Your task to perform on an android device: Go to wifi settings Image 0: 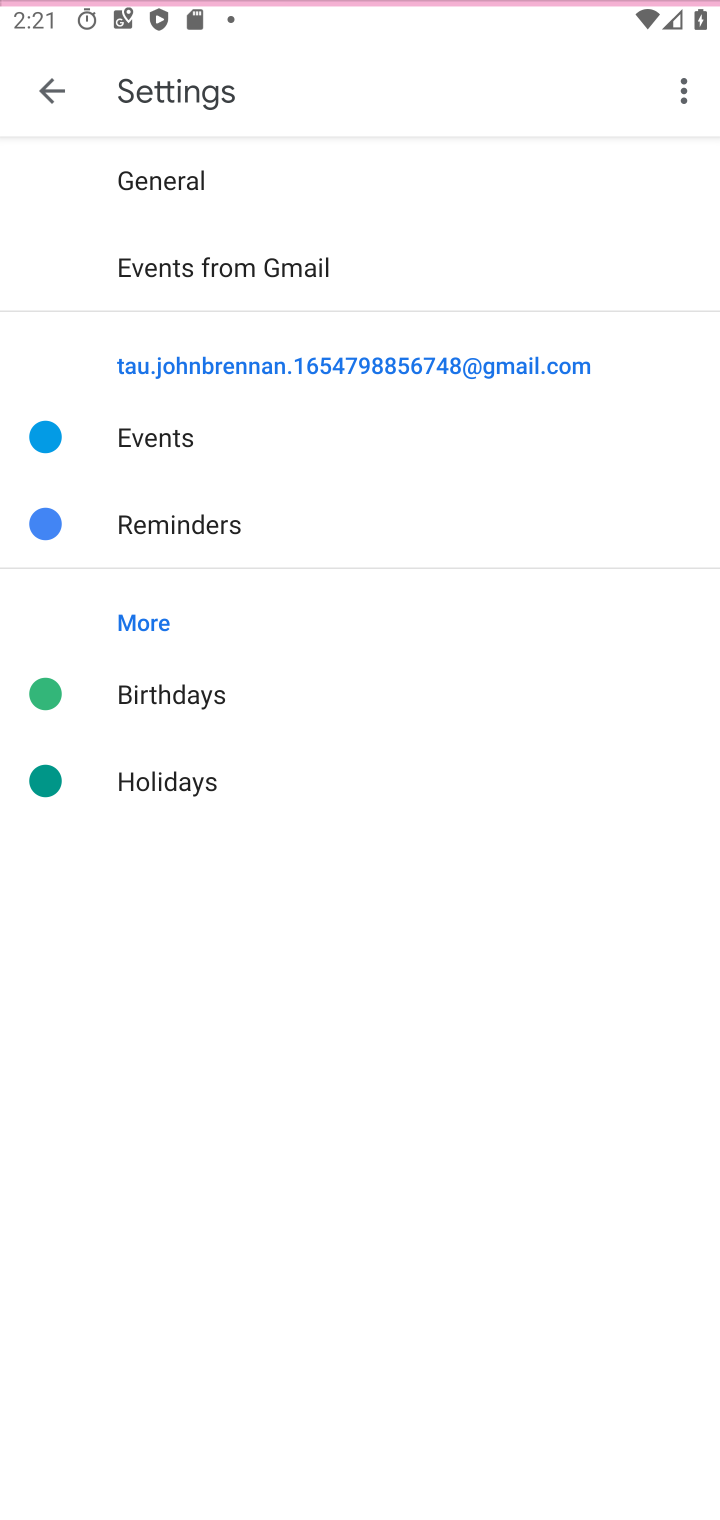
Step 0: press home button
Your task to perform on an android device: Go to wifi settings Image 1: 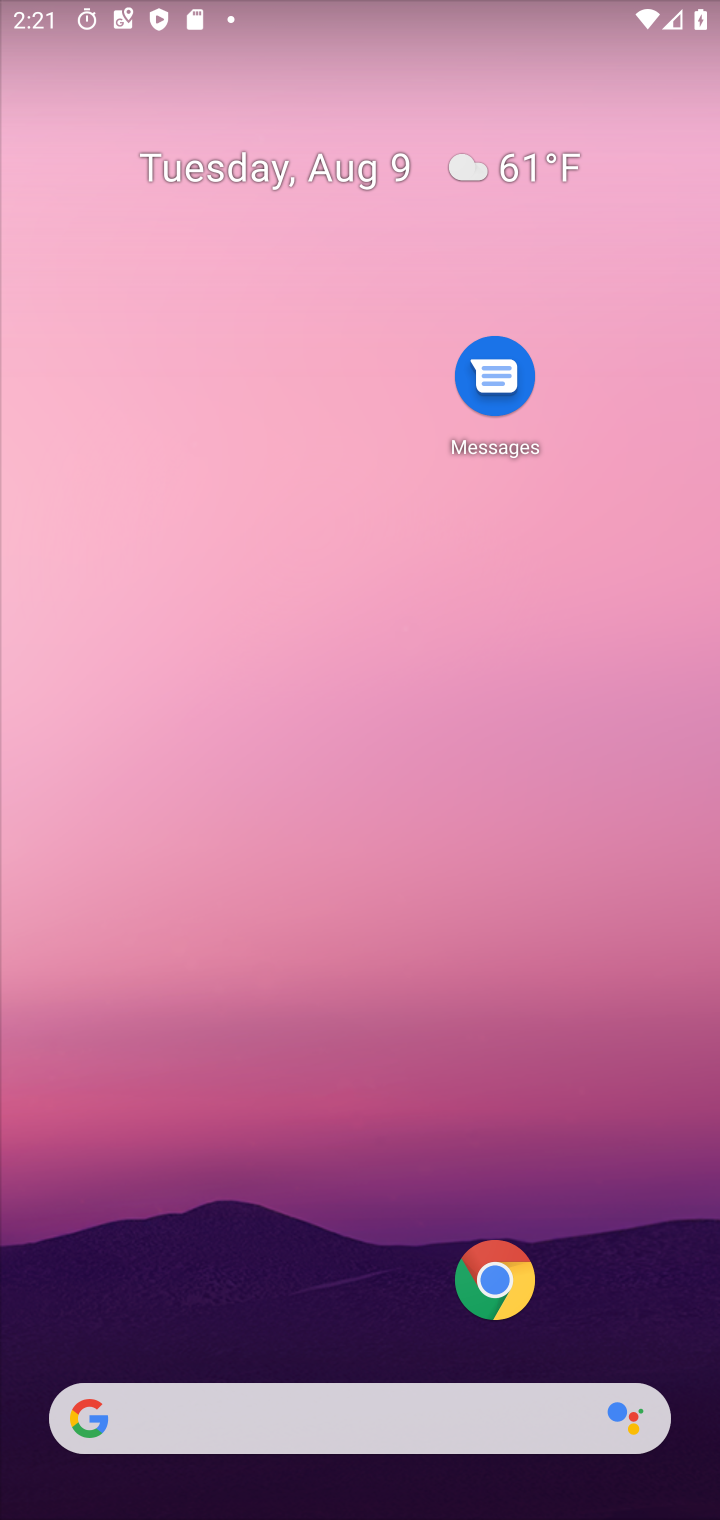
Step 1: drag from (362, 1332) to (654, 167)
Your task to perform on an android device: Go to wifi settings Image 2: 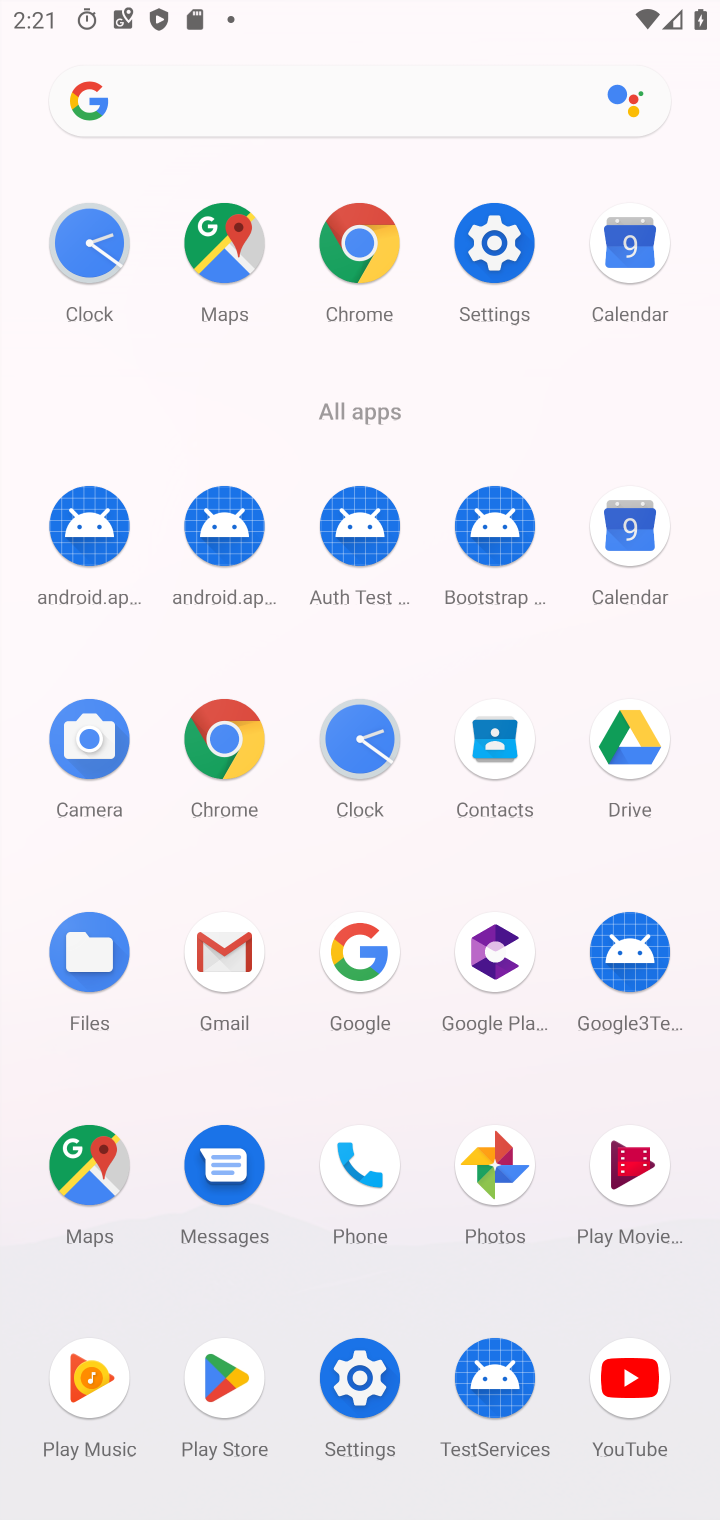
Step 2: click (503, 250)
Your task to perform on an android device: Go to wifi settings Image 3: 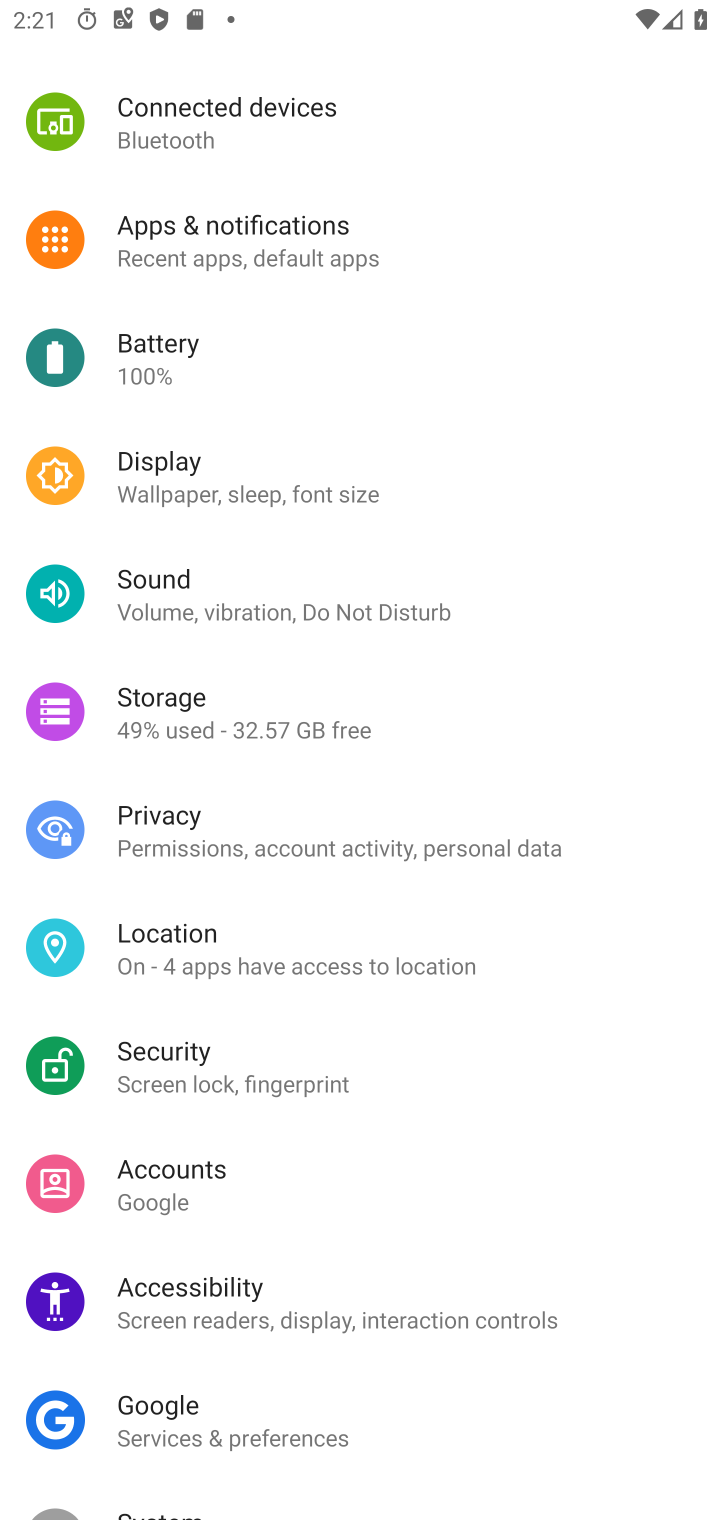
Step 3: drag from (477, 180) to (452, 1126)
Your task to perform on an android device: Go to wifi settings Image 4: 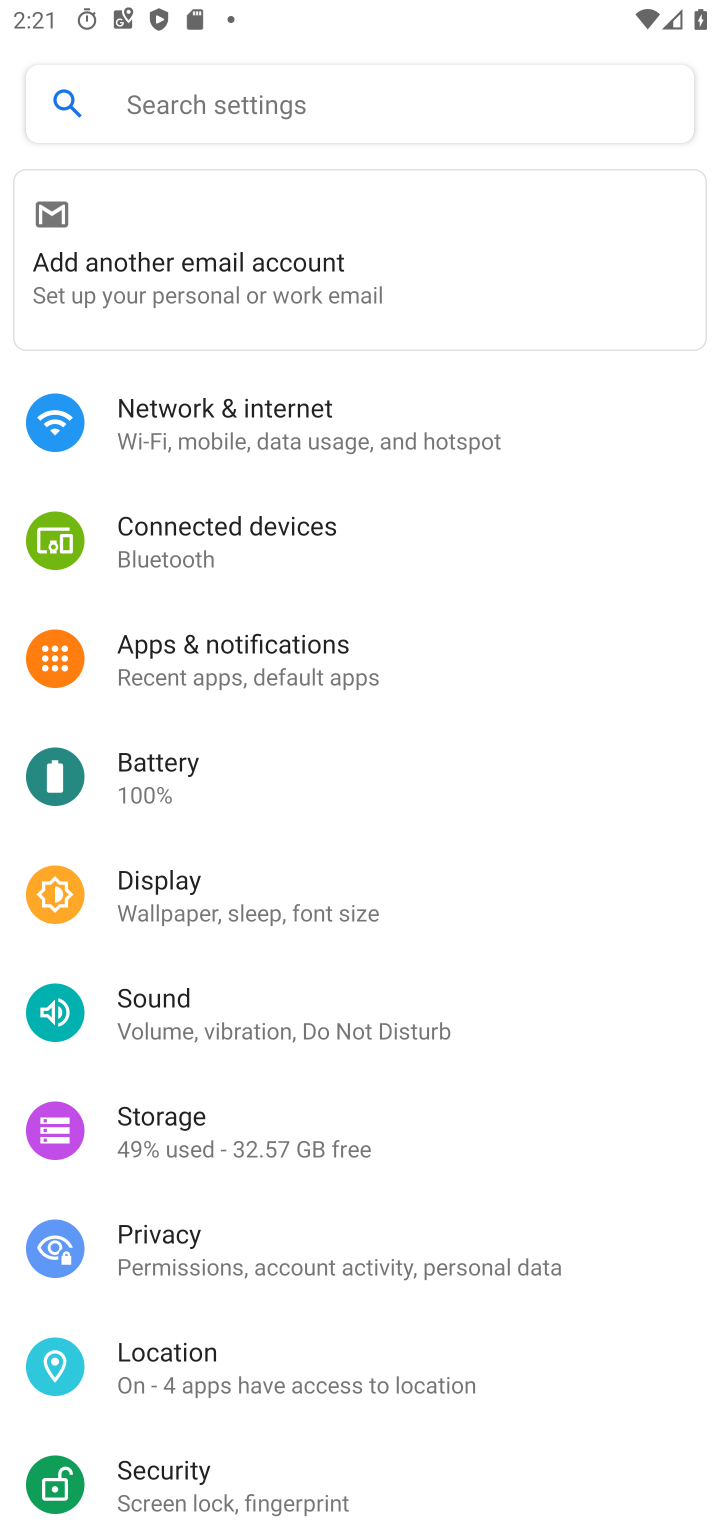
Step 4: click (279, 418)
Your task to perform on an android device: Go to wifi settings Image 5: 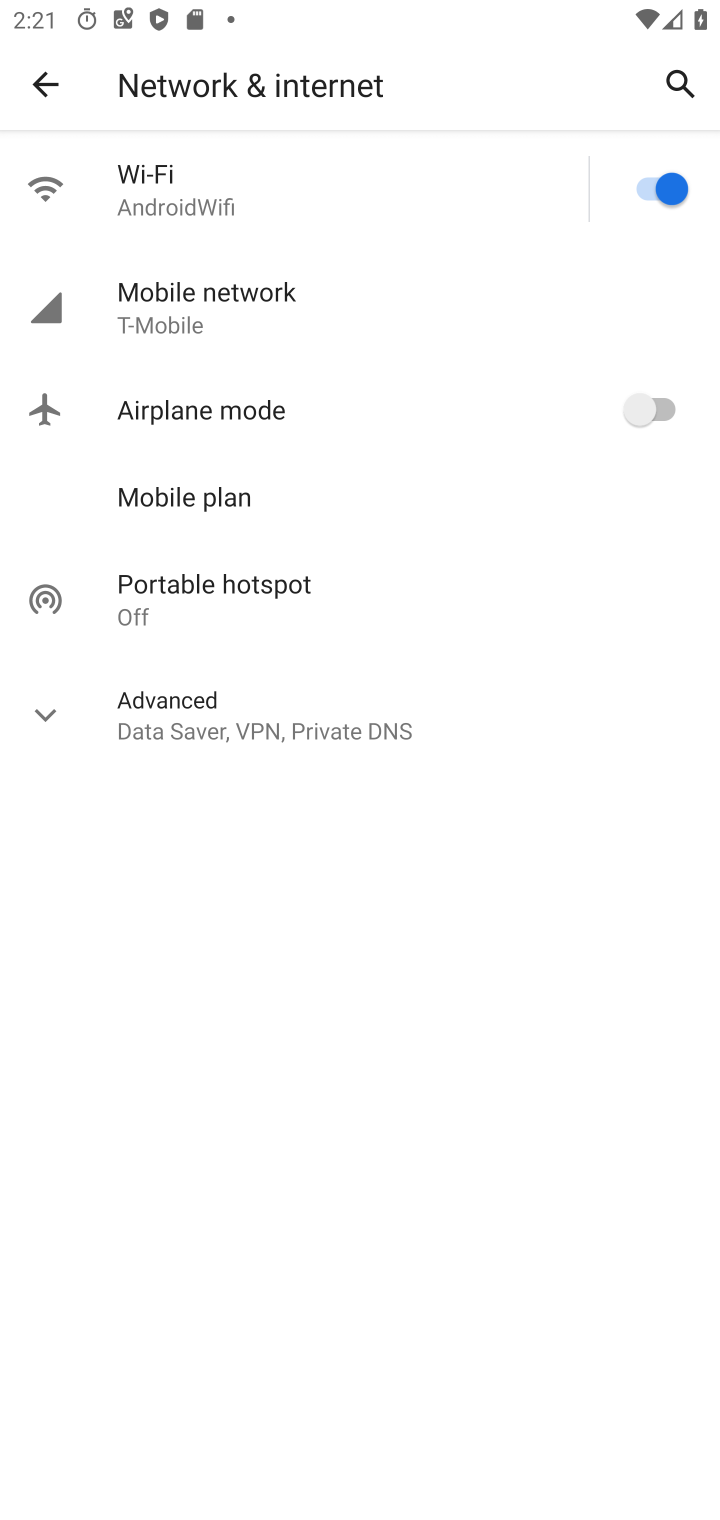
Step 5: click (163, 193)
Your task to perform on an android device: Go to wifi settings Image 6: 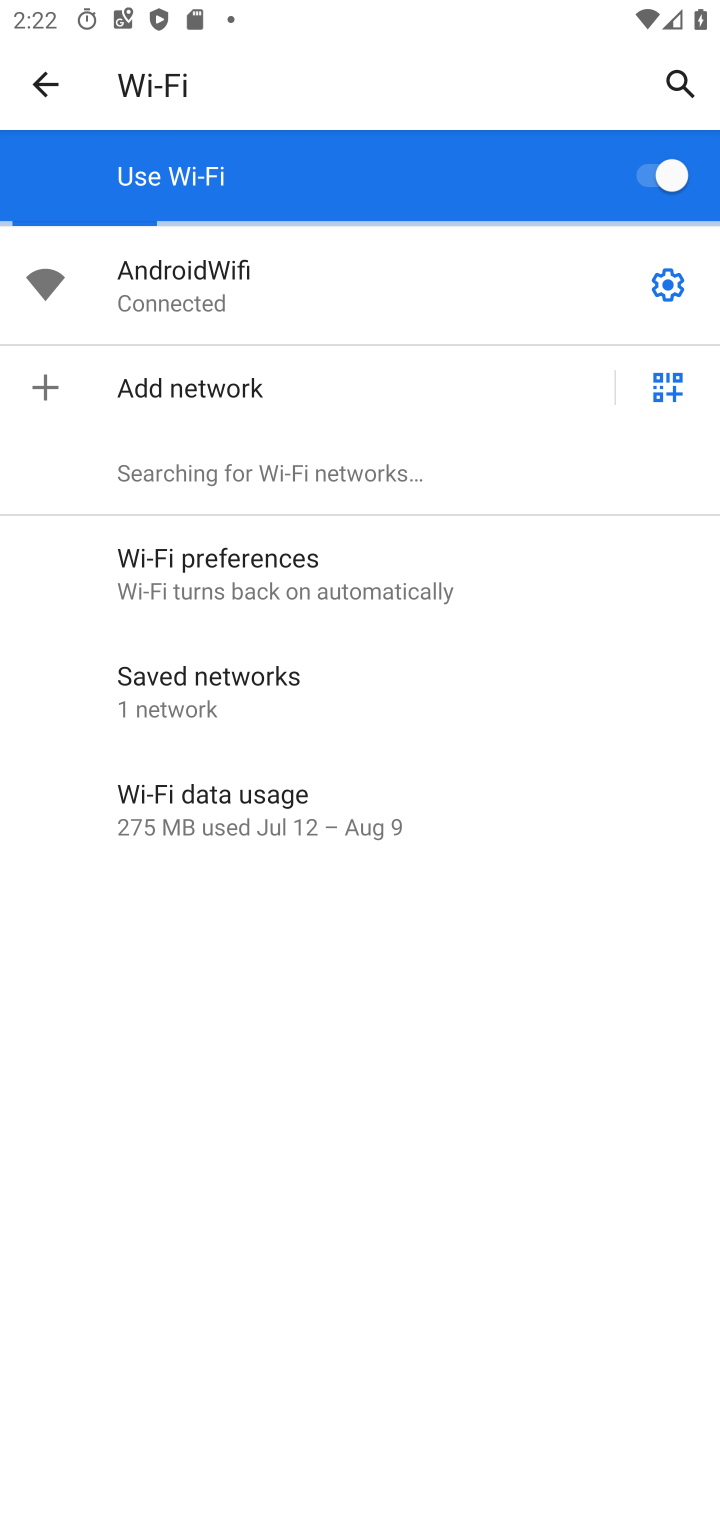
Step 6: task complete